Your task to perform on an android device: turn off airplane mode Image 0: 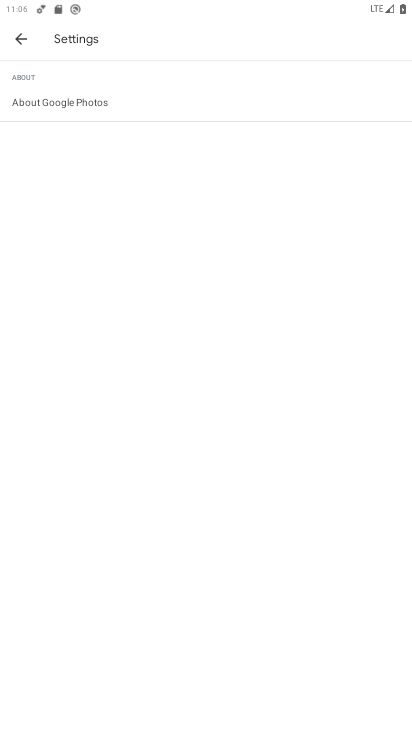
Step 0: press home button
Your task to perform on an android device: turn off airplane mode Image 1: 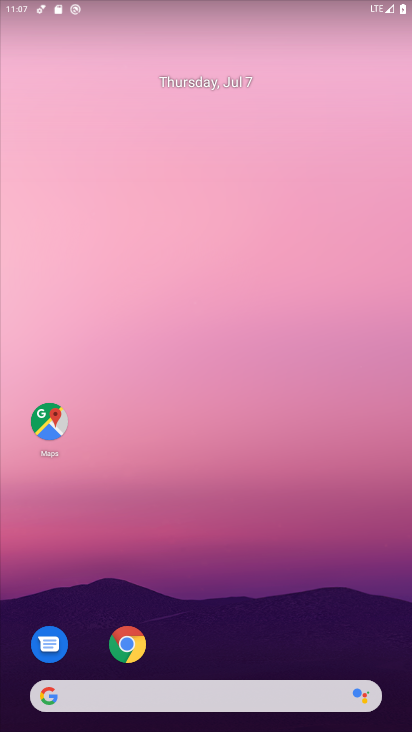
Step 1: drag from (18, 713) to (211, 126)
Your task to perform on an android device: turn off airplane mode Image 2: 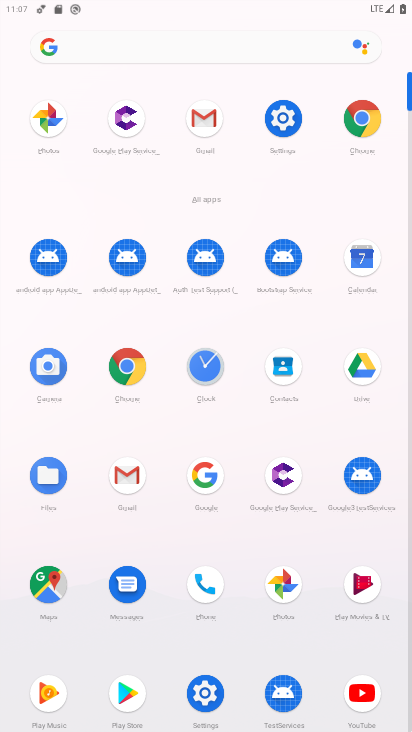
Step 2: click (206, 693)
Your task to perform on an android device: turn off airplane mode Image 3: 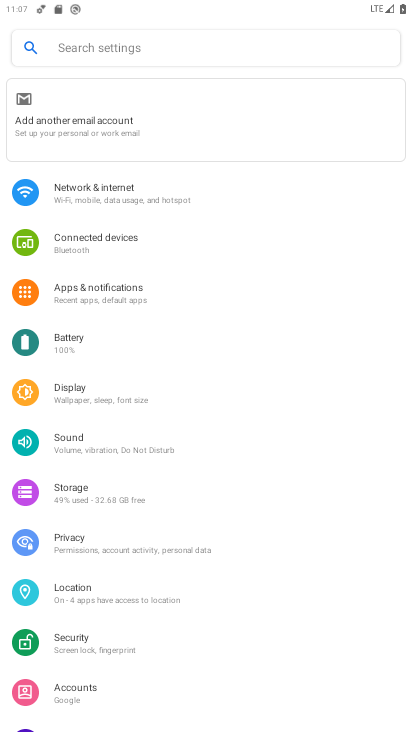
Step 3: click (176, 201)
Your task to perform on an android device: turn off airplane mode Image 4: 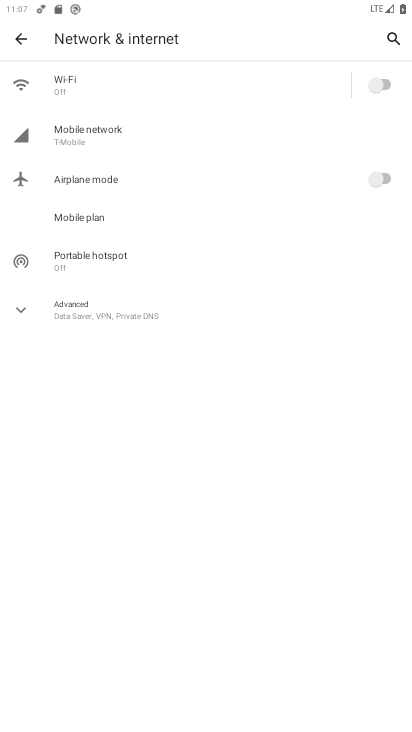
Step 4: click (370, 176)
Your task to perform on an android device: turn off airplane mode Image 5: 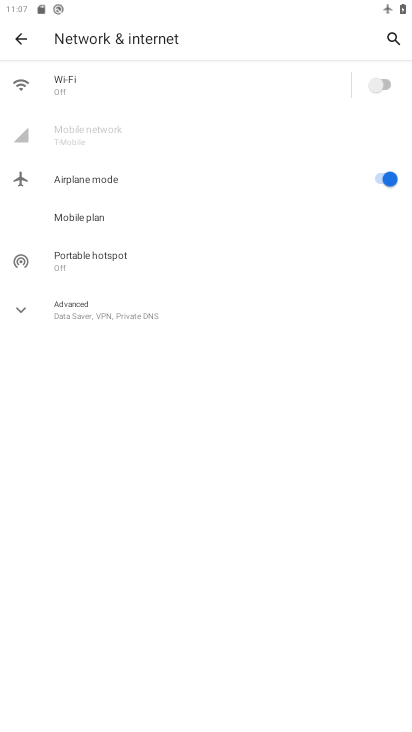
Step 5: task complete